Your task to perform on an android device: make emails show in primary in the gmail app Image 0: 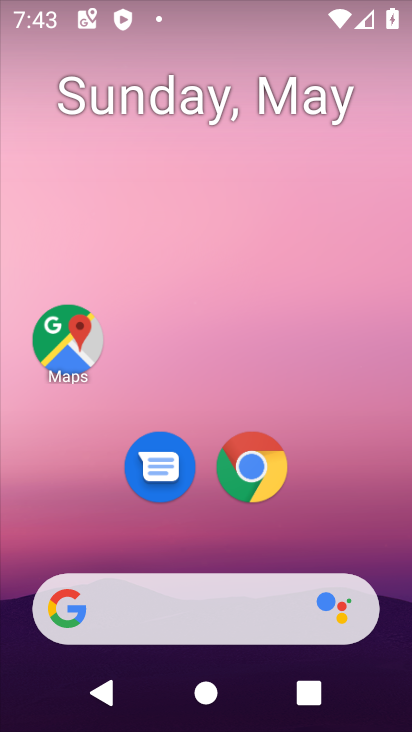
Step 0: drag from (349, 542) to (312, 9)
Your task to perform on an android device: make emails show in primary in the gmail app Image 1: 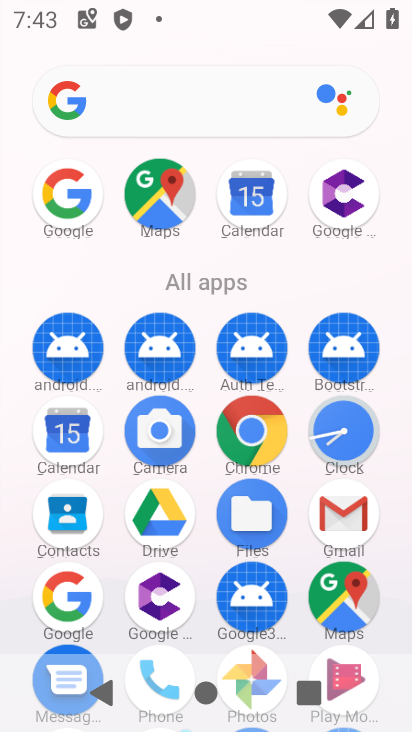
Step 1: click (344, 505)
Your task to perform on an android device: make emails show in primary in the gmail app Image 2: 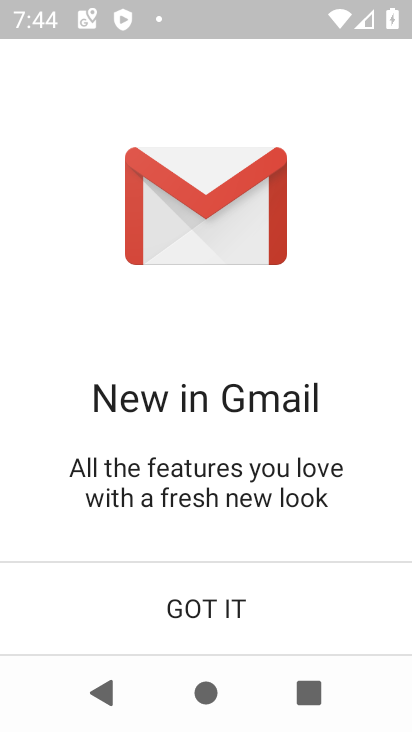
Step 2: click (198, 609)
Your task to perform on an android device: make emails show in primary in the gmail app Image 3: 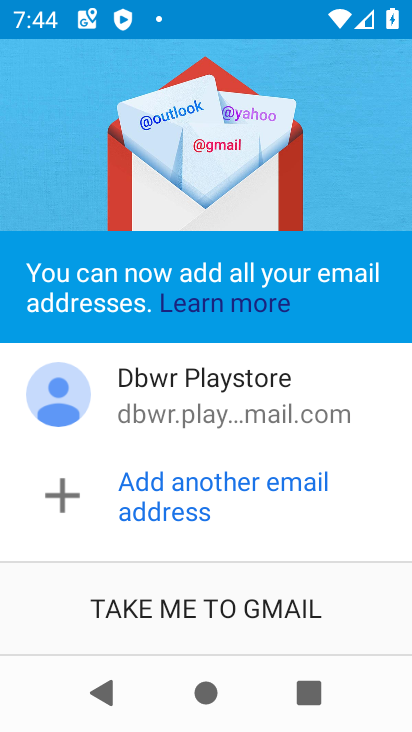
Step 3: click (198, 609)
Your task to perform on an android device: make emails show in primary in the gmail app Image 4: 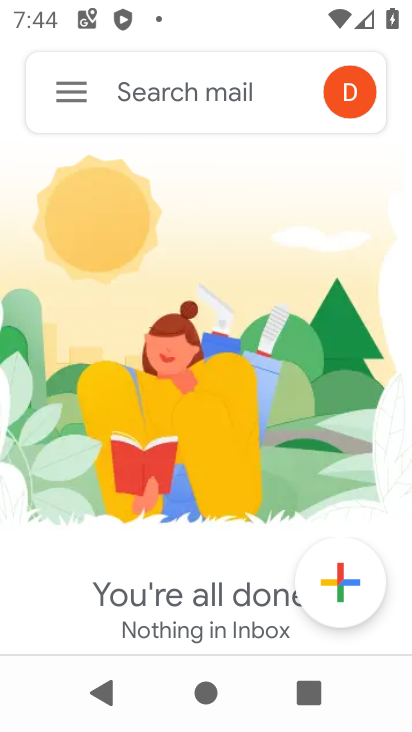
Step 4: click (66, 96)
Your task to perform on an android device: make emails show in primary in the gmail app Image 5: 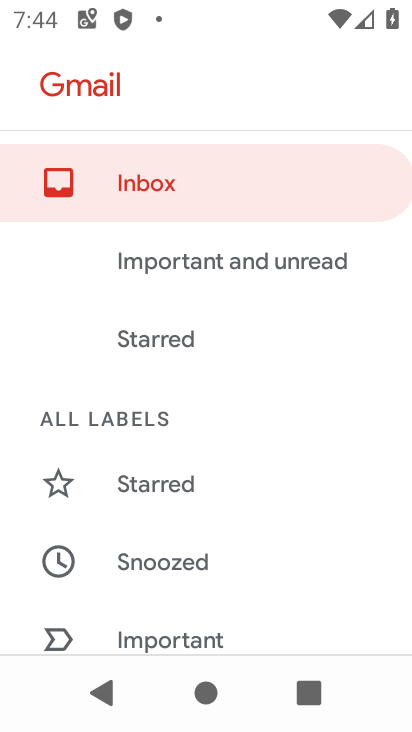
Step 5: drag from (225, 540) to (206, 105)
Your task to perform on an android device: make emails show in primary in the gmail app Image 6: 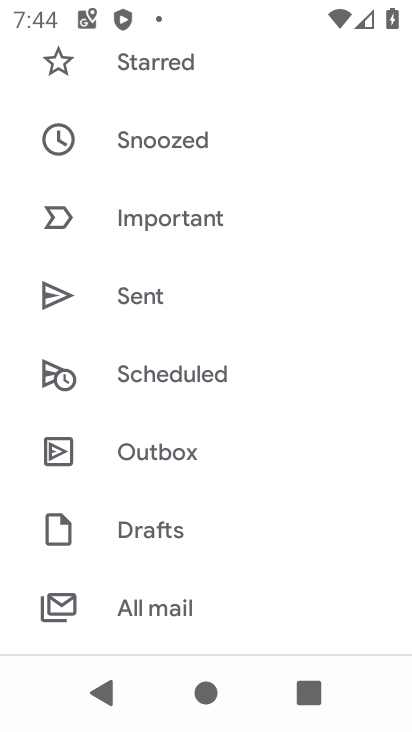
Step 6: drag from (196, 495) to (169, 99)
Your task to perform on an android device: make emails show in primary in the gmail app Image 7: 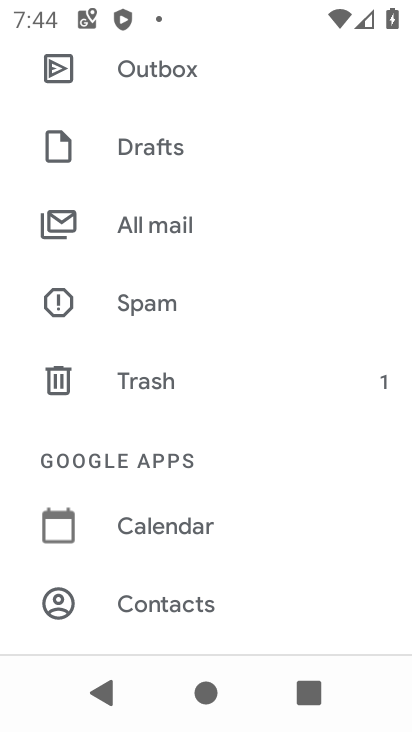
Step 7: drag from (181, 546) to (152, 148)
Your task to perform on an android device: make emails show in primary in the gmail app Image 8: 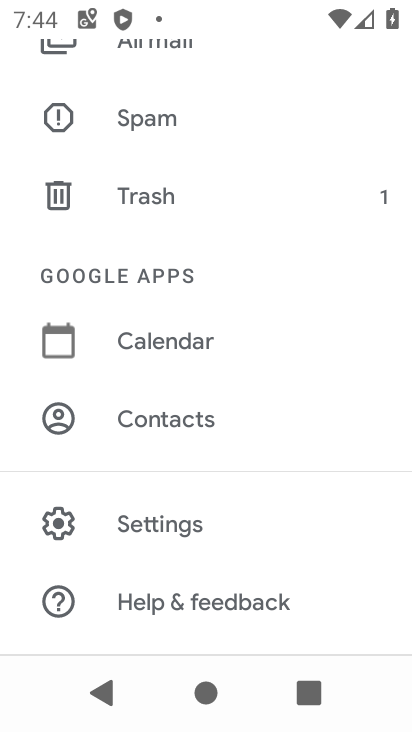
Step 8: click (147, 517)
Your task to perform on an android device: make emails show in primary in the gmail app Image 9: 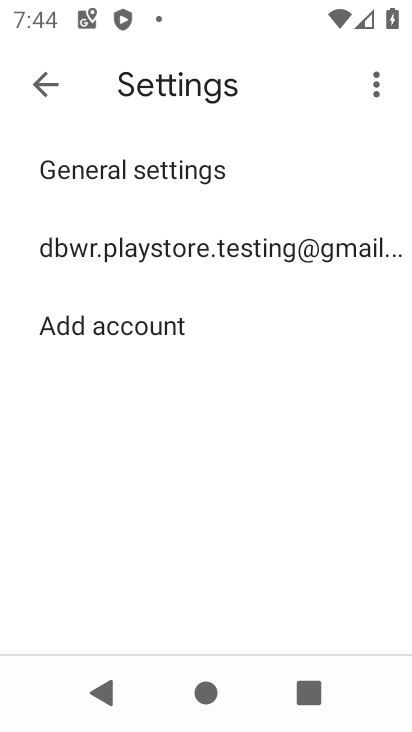
Step 9: click (175, 266)
Your task to perform on an android device: make emails show in primary in the gmail app Image 10: 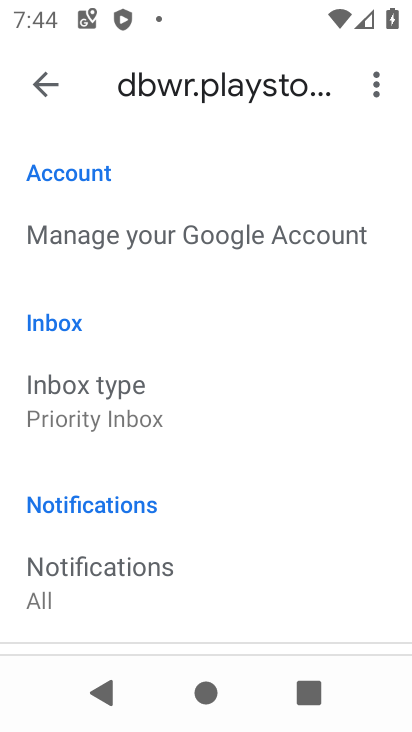
Step 10: task complete